Your task to perform on an android device: Open Youtube and go to the subscriptions tab Image 0: 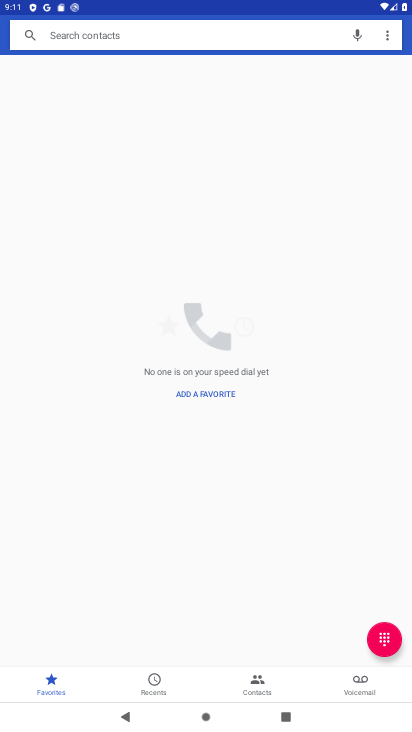
Step 0: press home button
Your task to perform on an android device: Open Youtube and go to the subscriptions tab Image 1: 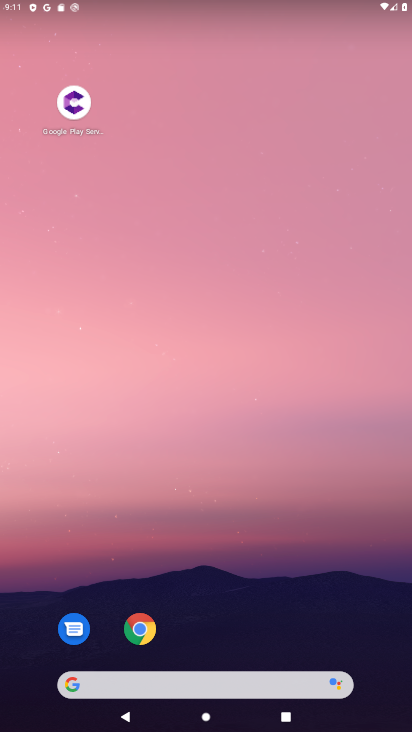
Step 1: drag from (232, 662) to (309, 34)
Your task to perform on an android device: Open Youtube and go to the subscriptions tab Image 2: 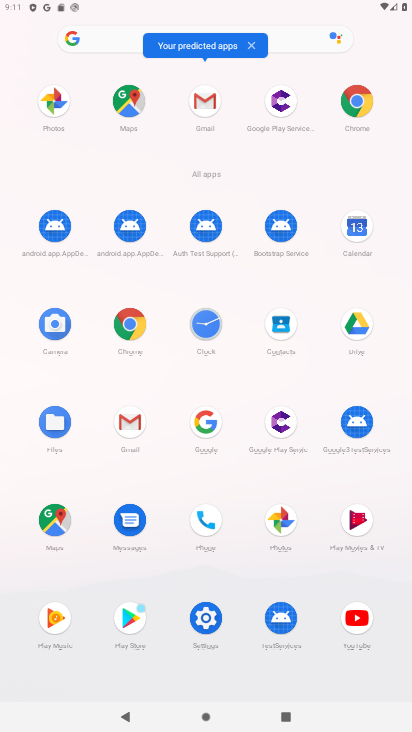
Step 2: click (357, 647)
Your task to perform on an android device: Open Youtube and go to the subscriptions tab Image 3: 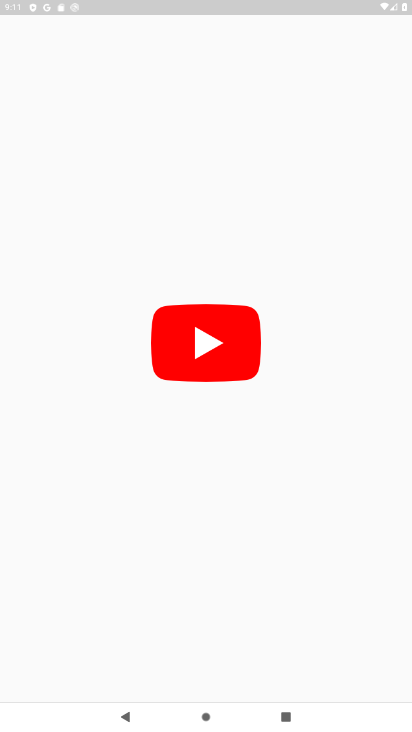
Step 3: task complete